Your task to perform on an android device: turn off improve location accuracy Image 0: 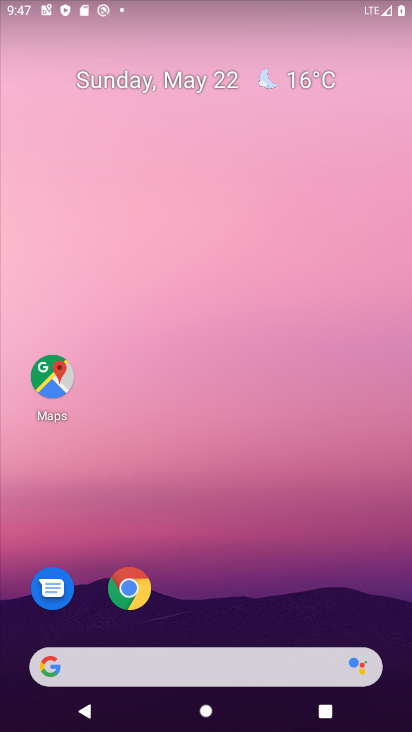
Step 0: drag from (206, 594) to (206, 158)
Your task to perform on an android device: turn off improve location accuracy Image 1: 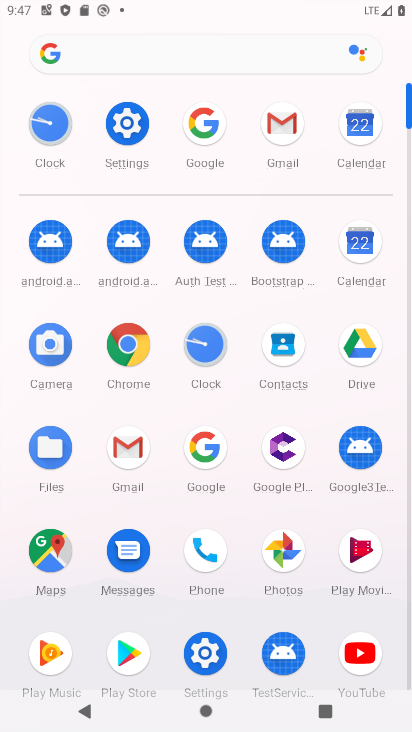
Step 1: click (111, 133)
Your task to perform on an android device: turn off improve location accuracy Image 2: 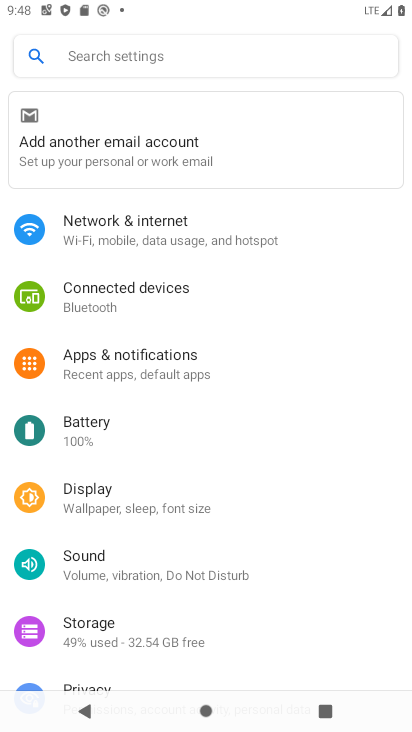
Step 2: drag from (141, 521) to (173, 355)
Your task to perform on an android device: turn off improve location accuracy Image 3: 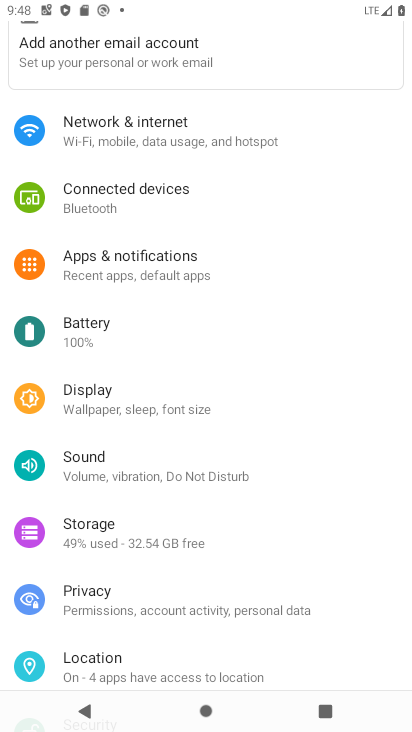
Step 3: click (136, 657)
Your task to perform on an android device: turn off improve location accuracy Image 4: 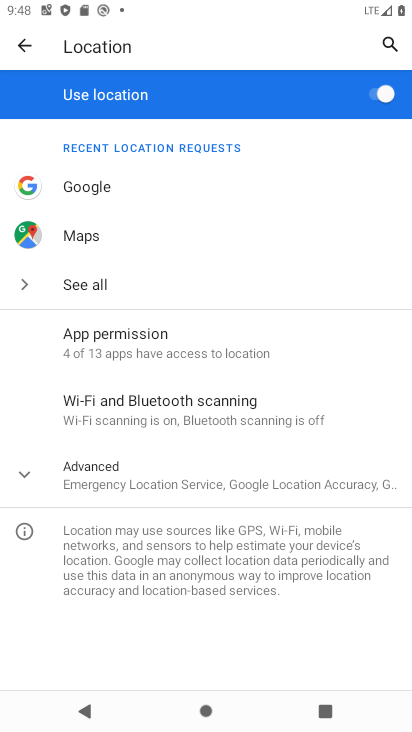
Step 4: click (144, 471)
Your task to perform on an android device: turn off improve location accuracy Image 5: 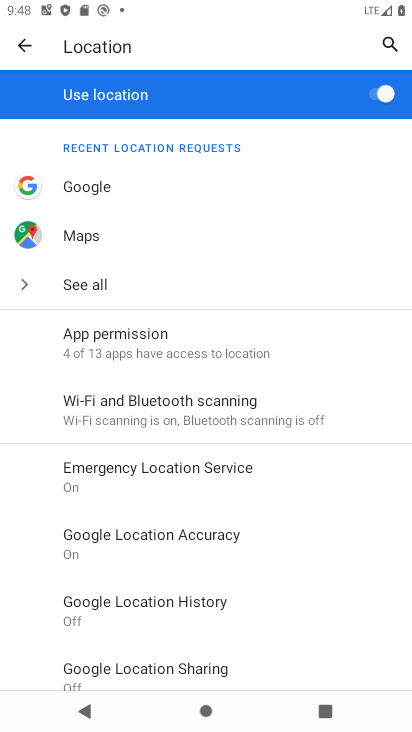
Step 5: click (187, 536)
Your task to perform on an android device: turn off improve location accuracy Image 6: 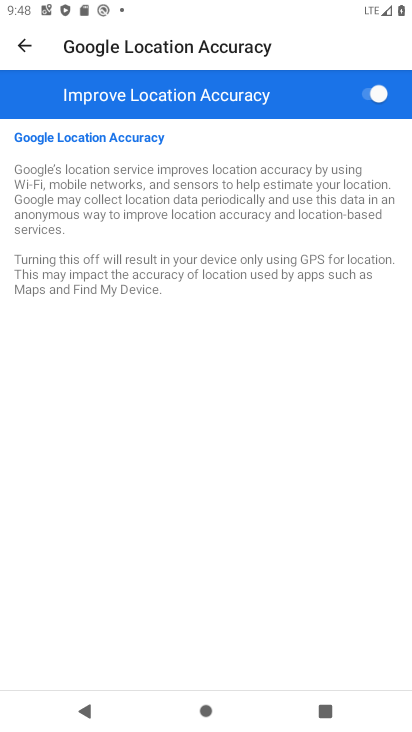
Step 6: click (370, 90)
Your task to perform on an android device: turn off improve location accuracy Image 7: 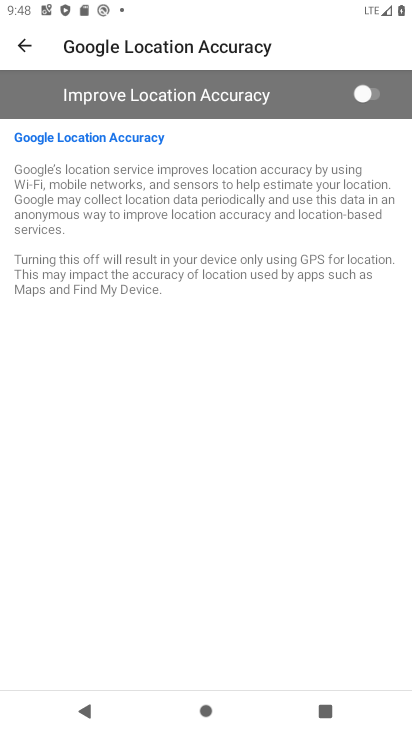
Step 7: task complete